Your task to perform on an android device: clear history in the chrome app Image 0: 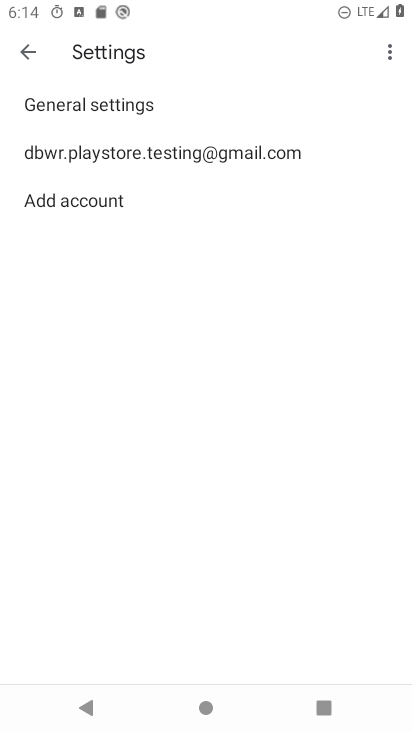
Step 0: press home button
Your task to perform on an android device: clear history in the chrome app Image 1: 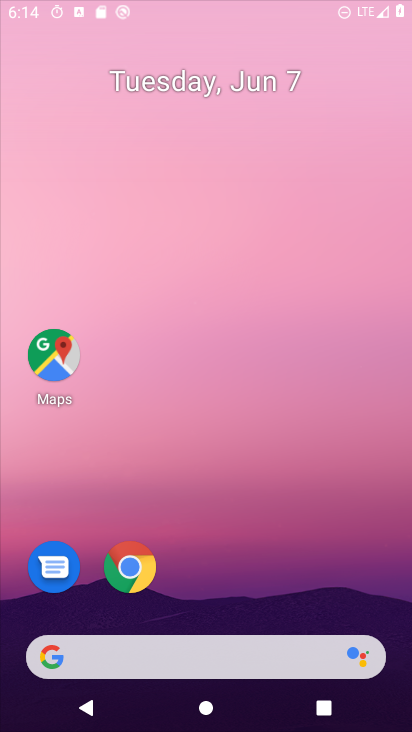
Step 1: drag from (267, 652) to (330, 123)
Your task to perform on an android device: clear history in the chrome app Image 2: 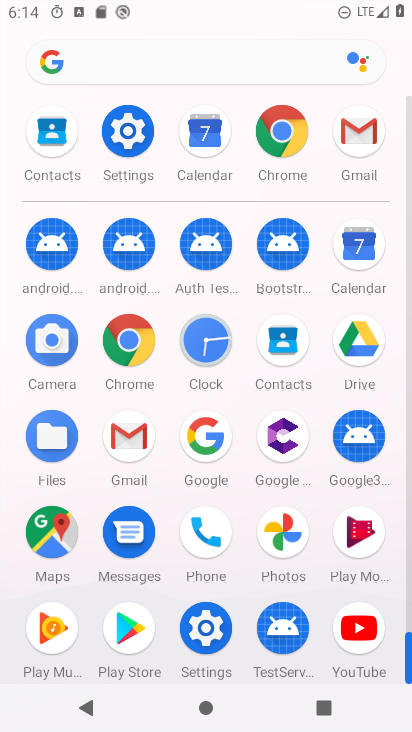
Step 2: click (138, 354)
Your task to perform on an android device: clear history in the chrome app Image 3: 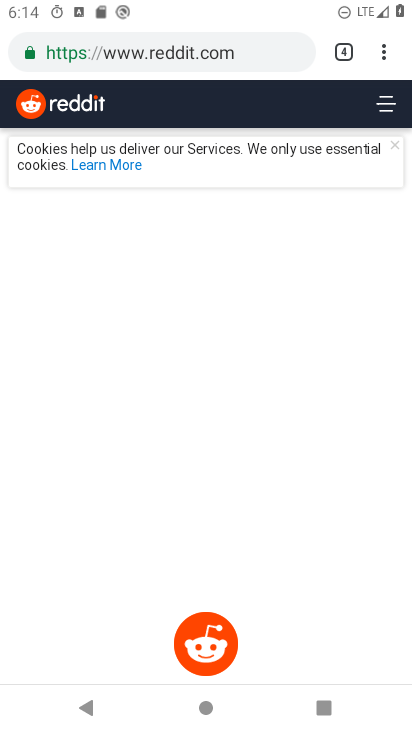
Step 3: drag from (382, 52) to (193, 292)
Your task to perform on an android device: clear history in the chrome app Image 4: 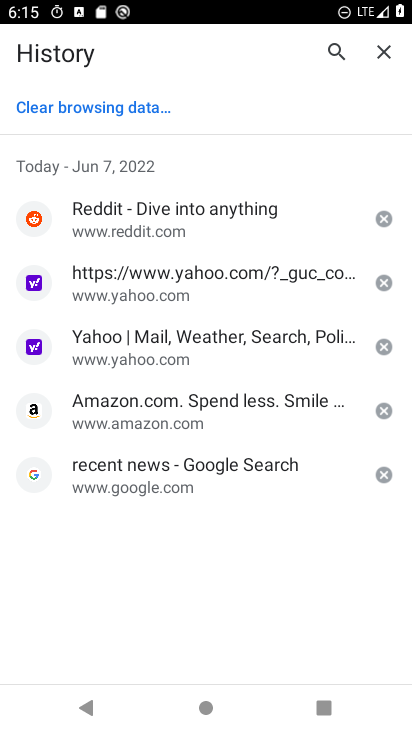
Step 4: click (143, 114)
Your task to perform on an android device: clear history in the chrome app Image 5: 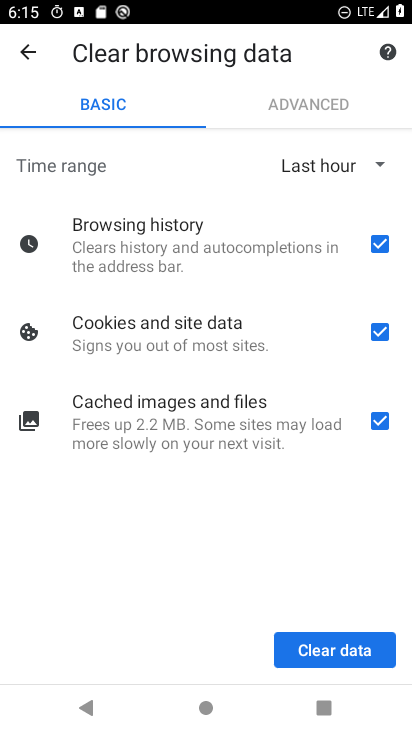
Step 5: click (365, 654)
Your task to perform on an android device: clear history in the chrome app Image 6: 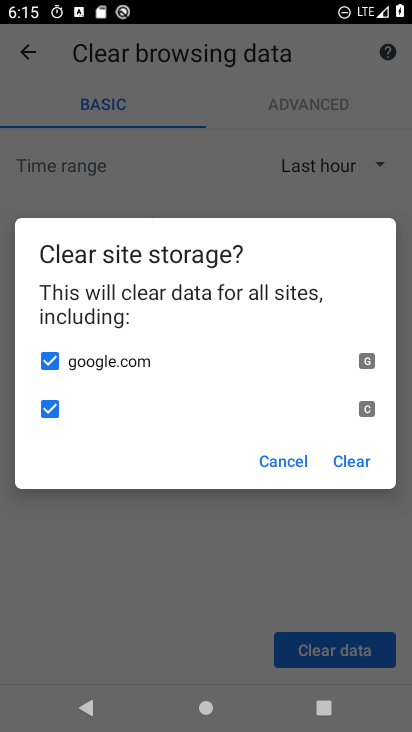
Step 6: click (344, 457)
Your task to perform on an android device: clear history in the chrome app Image 7: 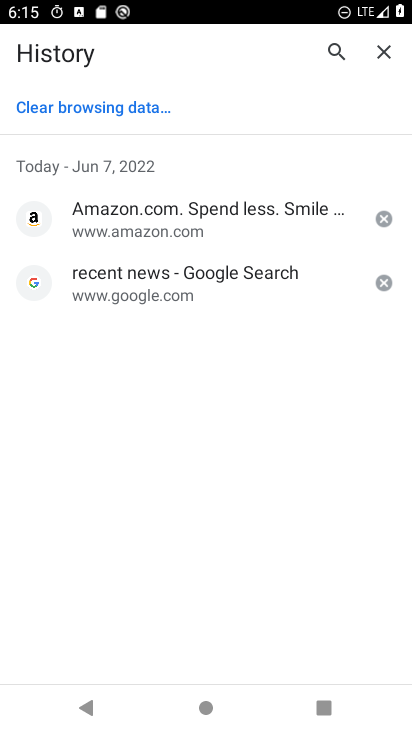
Step 7: click (388, 217)
Your task to perform on an android device: clear history in the chrome app Image 8: 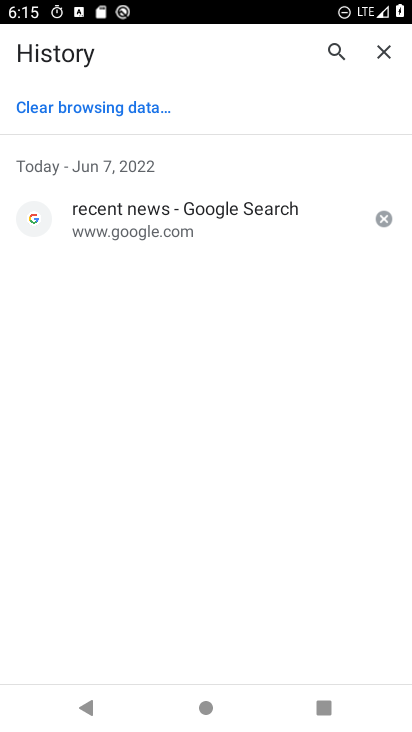
Step 8: click (388, 221)
Your task to perform on an android device: clear history in the chrome app Image 9: 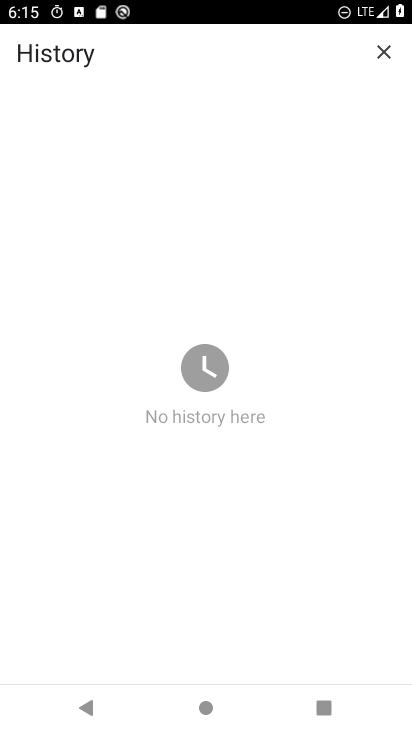
Step 9: task complete